Your task to perform on an android device: Open the web browser Image 0: 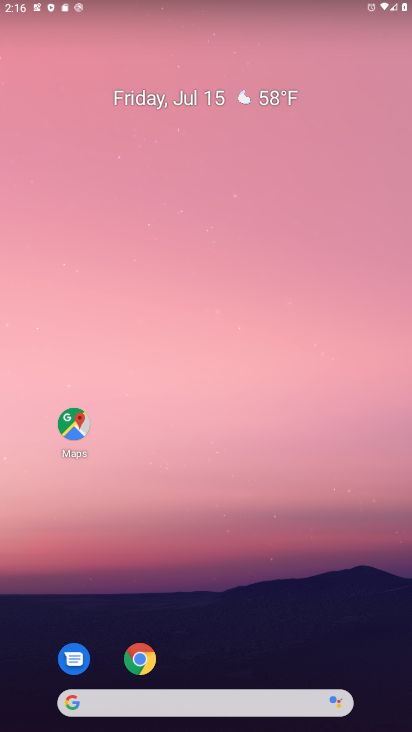
Step 0: click (140, 660)
Your task to perform on an android device: Open the web browser Image 1: 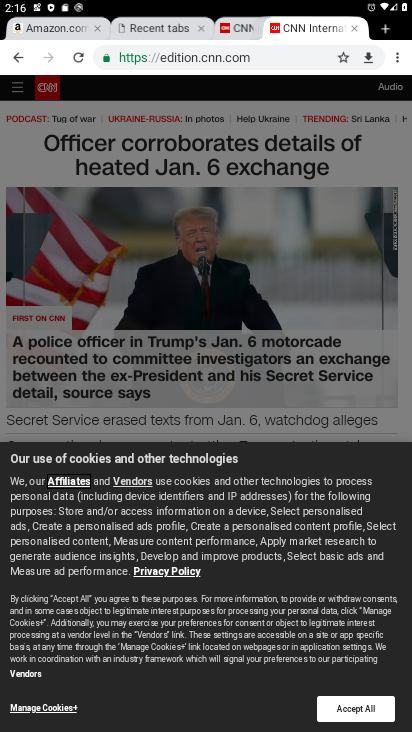
Step 1: task complete